Your task to perform on an android device: Open Chrome and go to the settings page Image 0: 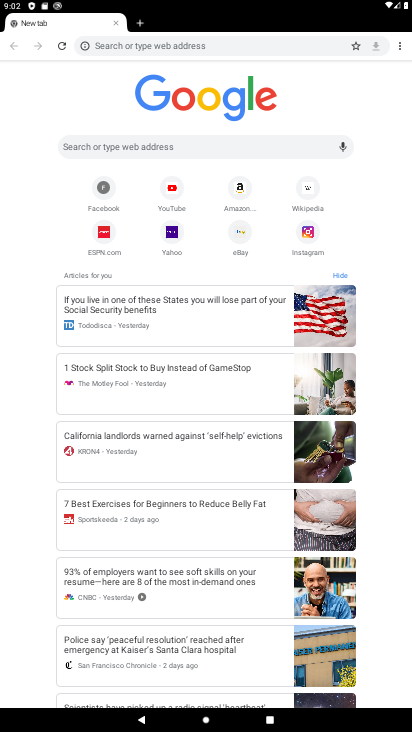
Step 0: press home button
Your task to perform on an android device: Open Chrome and go to the settings page Image 1: 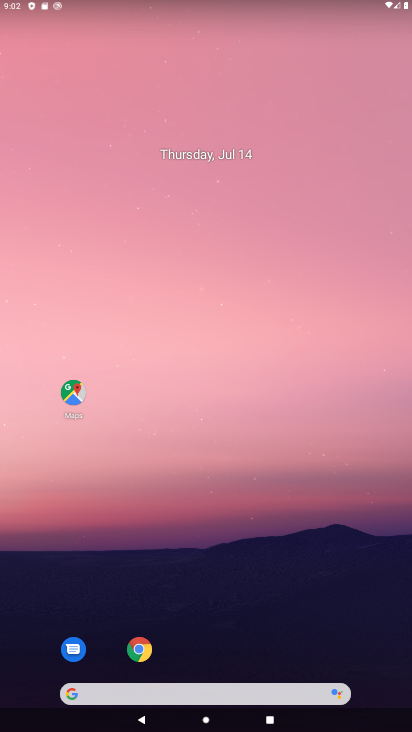
Step 1: drag from (189, 621) to (221, 48)
Your task to perform on an android device: Open Chrome and go to the settings page Image 2: 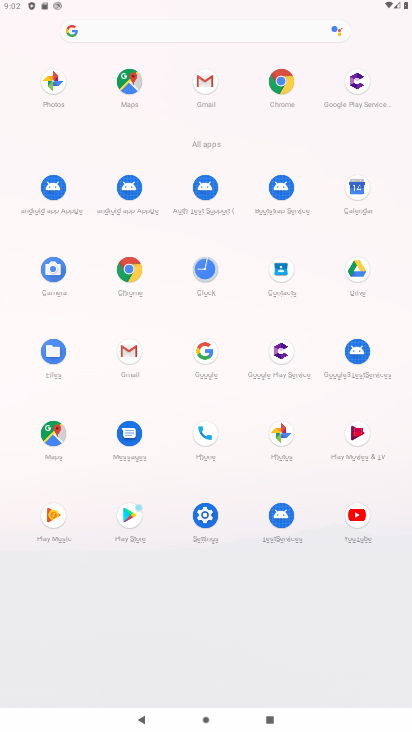
Step 2: click (276, 93)
Your task to perform on an android device: Open Chrome and go to the settings page Image 3: 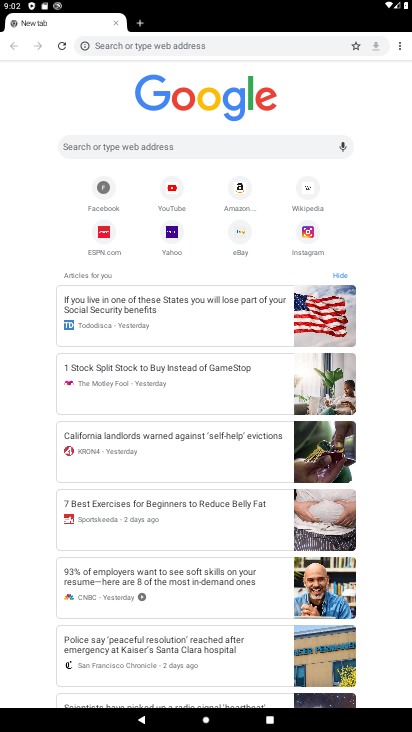
Step 3: click (397, 44)
Your task to perform on an android device: Open Chrome and go to the settings page Image 4: 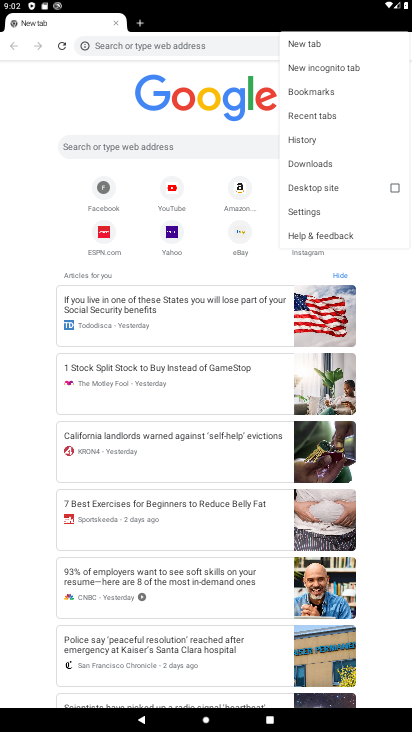
Step 4: click (293, 207)
Your task to perform on an android device: Open Chrome and go to the settings page Image 5: 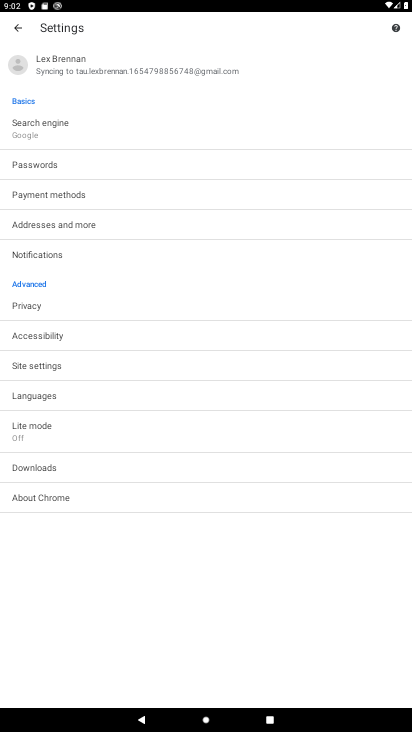
Step 5: task complete